Your task to perform on an android device: Open the calendar app, open the side menu, and click the "Day" option Image 0: 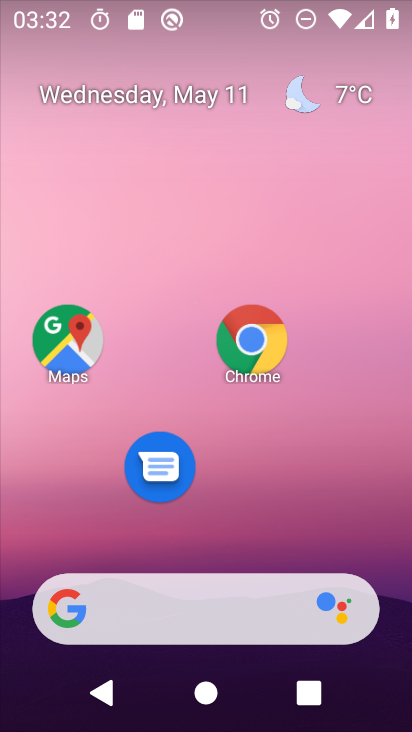
Step 0: drag from (197, 607) to (286, 177)
Your task to perform on an android device: Open the calendar app, open the side menu, and click the "Day" option Image 1: 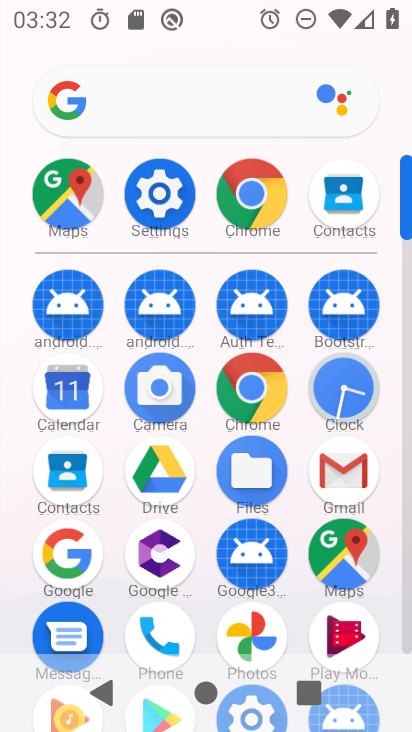
Step 1: click (80, 388)
Your task to perform on an android device: Open the calendar app, open the side menu, and click the "Day" option Image 2: 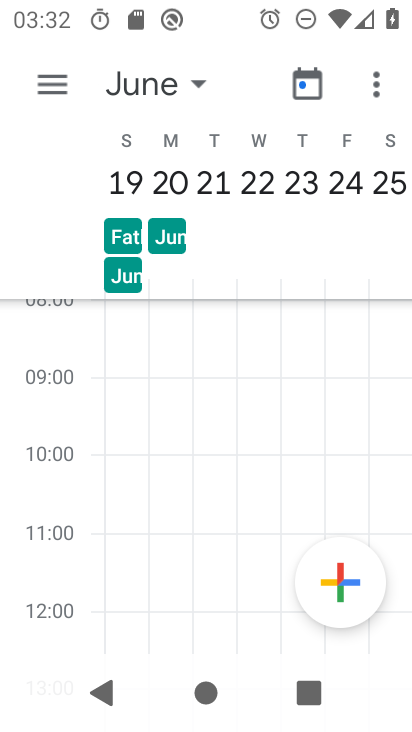
Step 2: click (46, 79)
Your task to perform on an android device: Open the calendar app, open the side menu, and click the "Day" option Image 3: 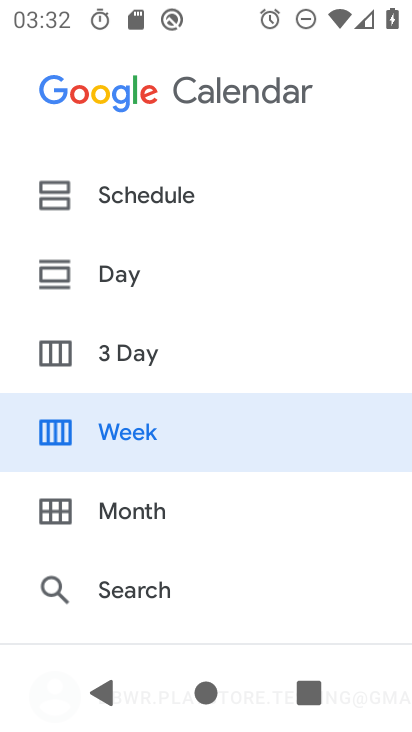
Step 3: click (106, 267)
Your task to perform on an android device: Open the calendar app, open the side menu, and click the "Day" option Image 4: 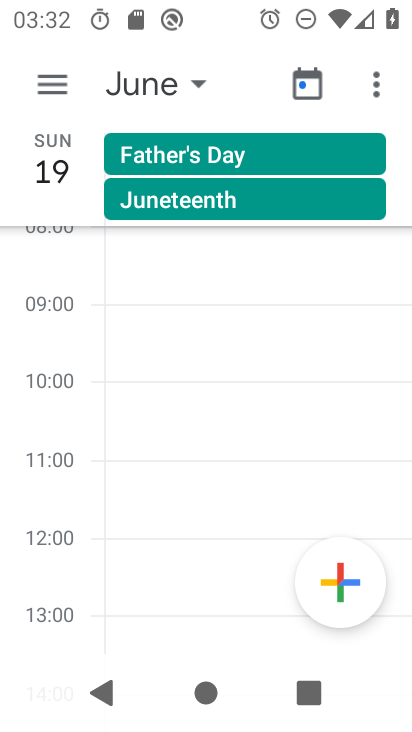
Step 4: task complete